Your task to perform on an android device: empty trash in google photos Image 0: 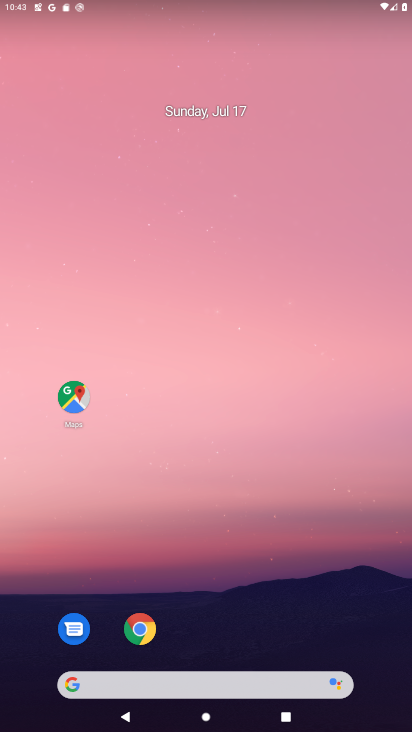
Step 0: drag from (191, 681) to (258, 218)
Your task to perform on an android device: empty trash in google photos Image 1: 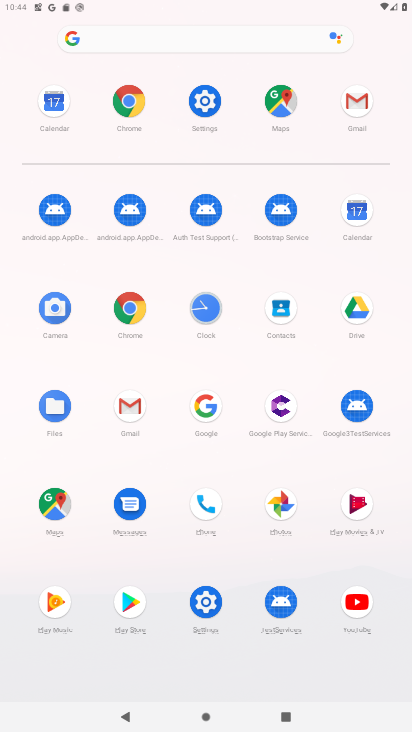
Step 1: click (280, 504)
Your task to perform on an android device: empty trash in google photos Image 2: 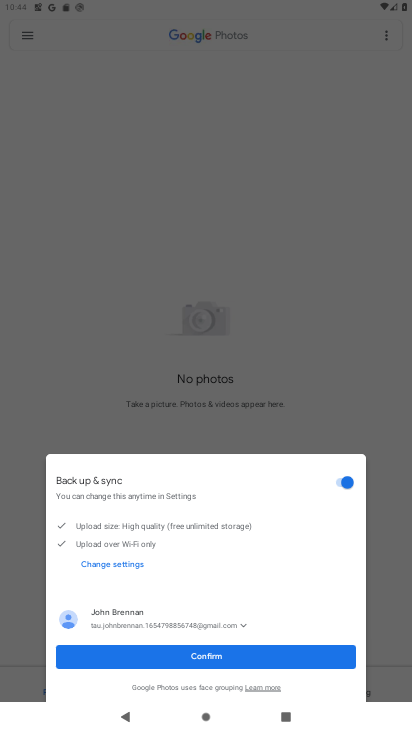
Step 2: click (215, 651)
Your task to perform on an android device: empty trash in google photos Image 3: 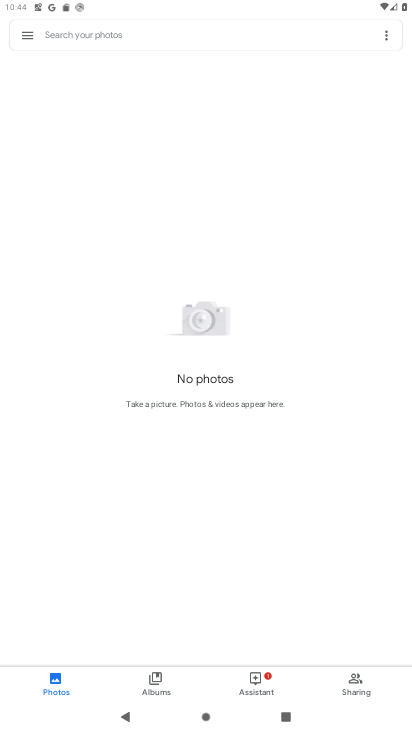
Step 3: click (27, 35)
Your task to perform on an android device: empty trash in google photos Image 4: 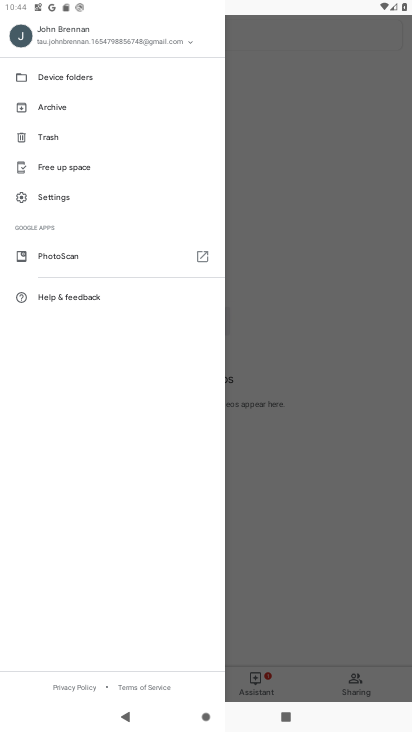
Step 4: click (58, 140)
Your task to perform on an android device: empty trash in google photos Image 5: 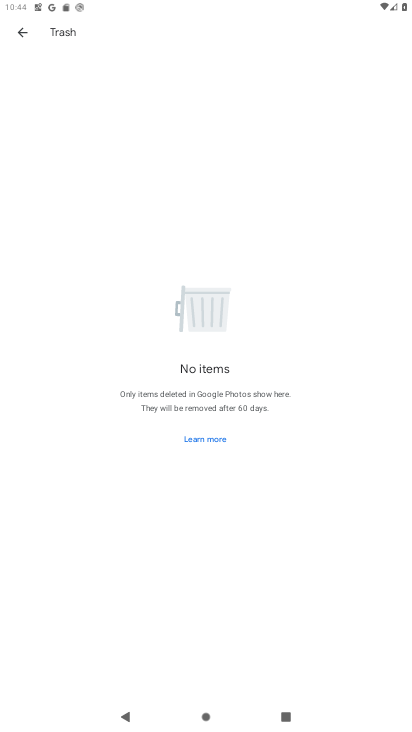
Step 5: task complete